Your task to perform on an android device: turn off smart reply in the gmail app Image 0: 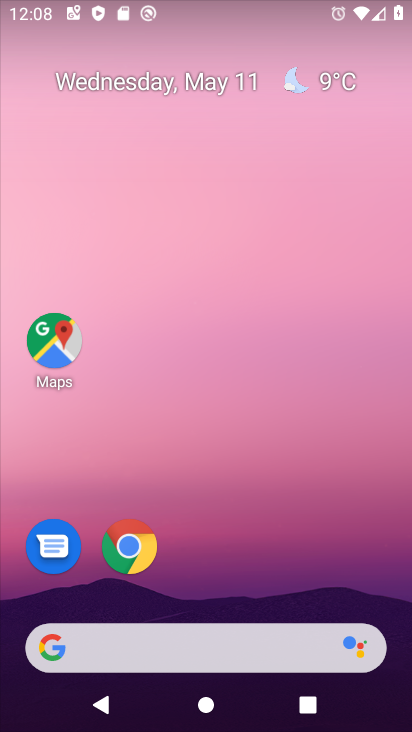
Step 0: drag from (221, 564) to (283, 130)
Your task to perform on an android device: turn off smart reply in the gmail app Image 1: 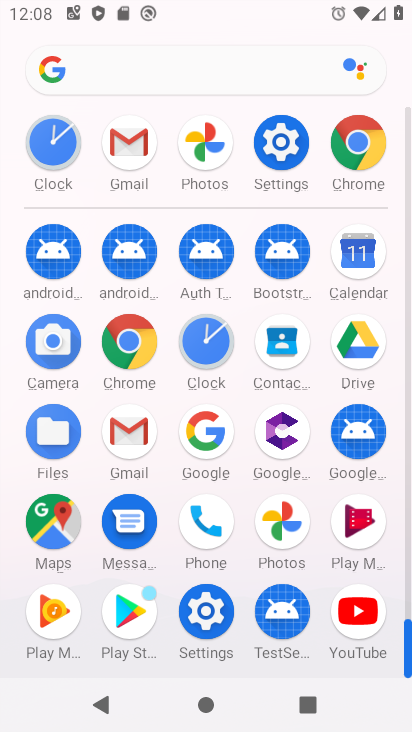
Step 1: click (114, 429)
Your task to perform on an android device: turn off smart reply in the gmail app Image 2: 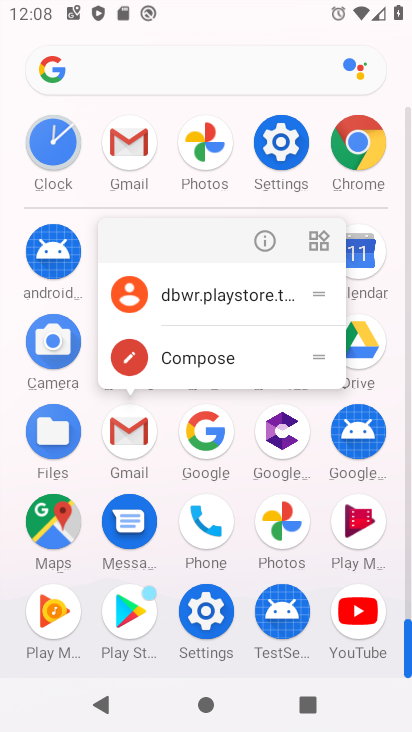
Step 2: click (260, 238)
Your task to perform on an android device: turn off smart reply in the gmail app Image 3: 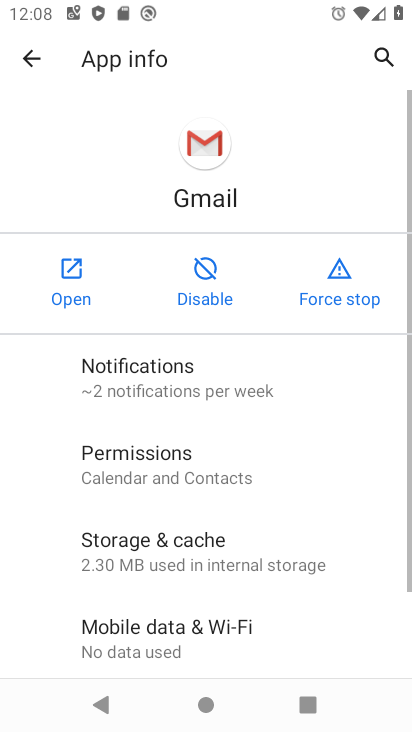
Step 3: click (61, 279)
Your task to perform on an android device: turn off smart reply in the gmail app Image 4: 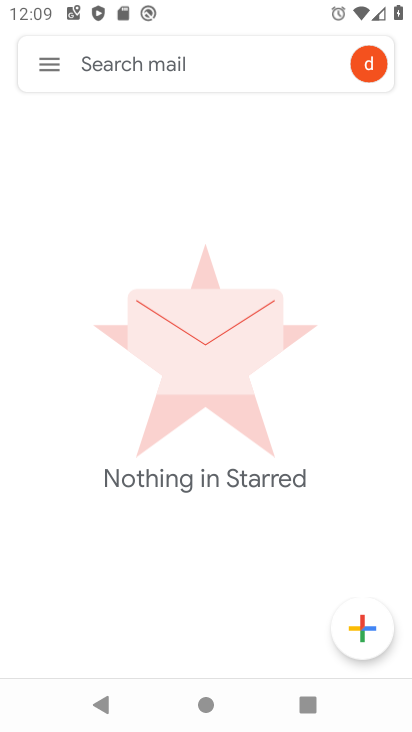
Step 4: click (58, 74)
Your task to perform on an android device: turn off smart reply in the gmail app Image 5: 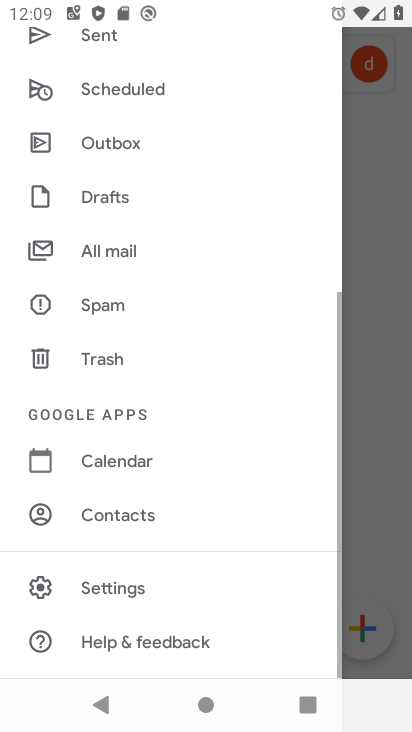
Step 5: drag from (212, 628) to (248, 295)
Your task to perform on an android device: turn off smart reply in the gmail app Image 6: 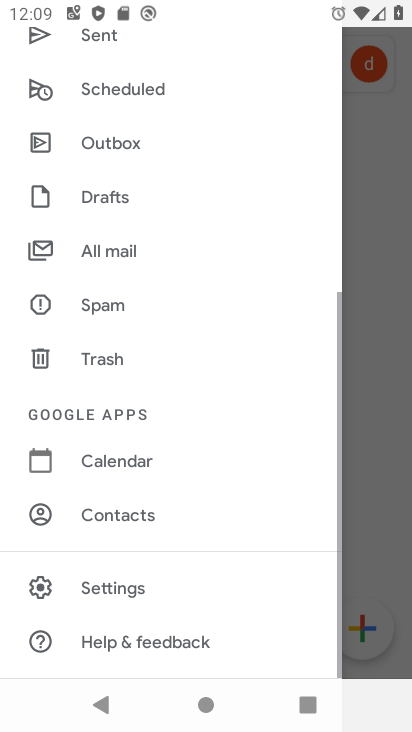
Step 6: click (134, 589)
Your task to perform on an android device: turn off smart reply in the gmail app Image 7: 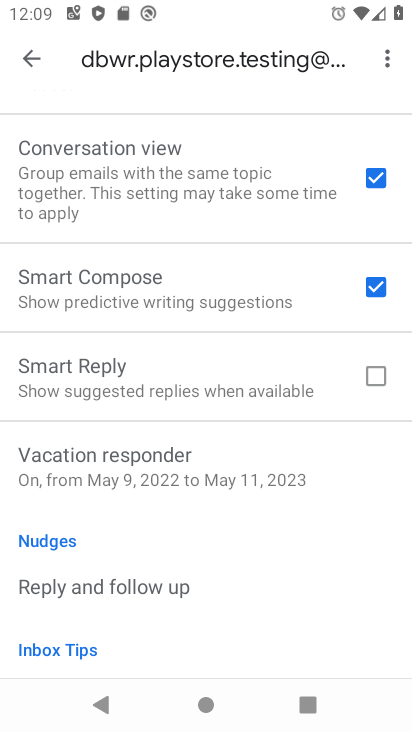
Step 7: task complete